Your task to perform on an android device: check battery use Image 0: 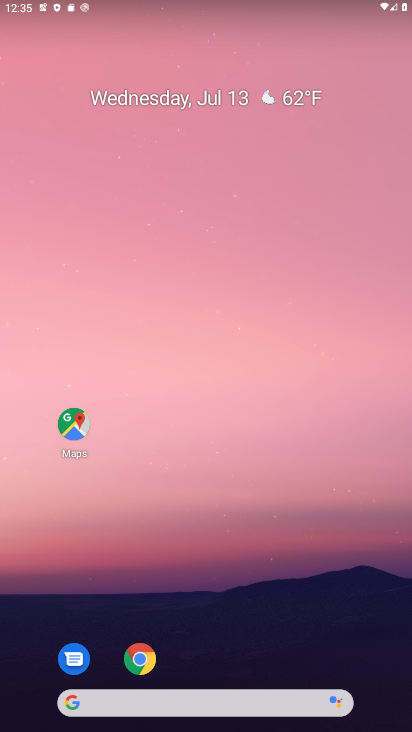
Step 0: drag from (225, 707) to (225, 100)
Your task to perform on an android device: check battery use Image 1: 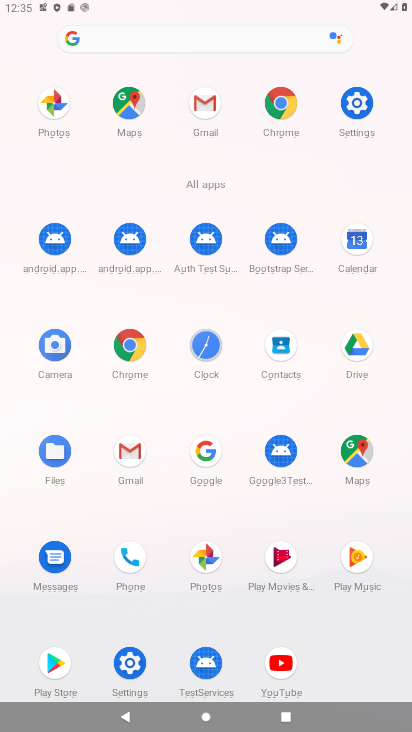
Step 1: click (357, 101)
Your task to perform on an android device: check battery use Image 2: 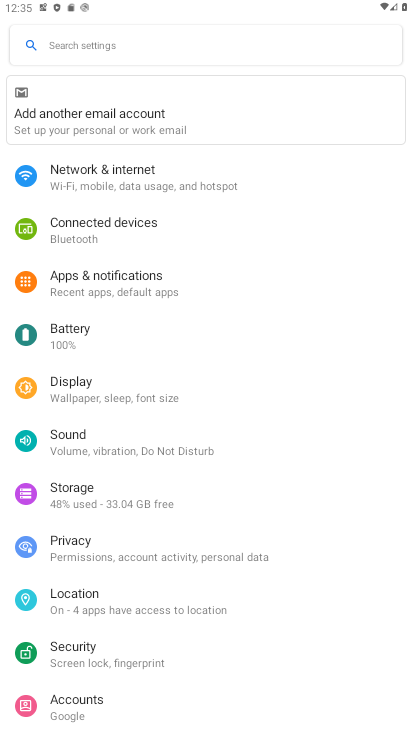
Step 2: click (65, 335)
Your task to perform on an android device: check battery use Image 3: 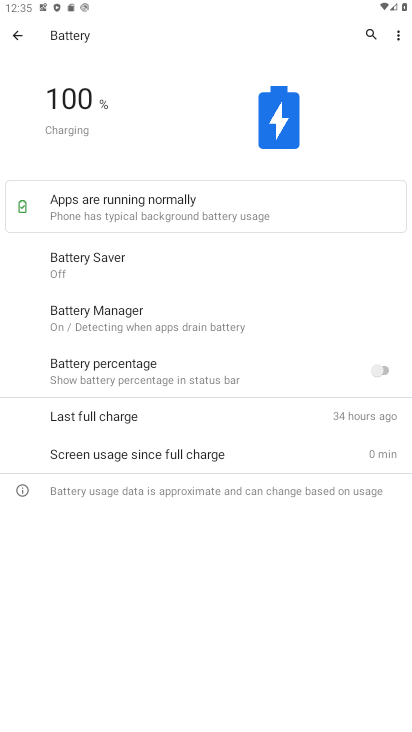
Step 3: click (399, 35)
Your task to perform on an android device: check battery use Image 4: 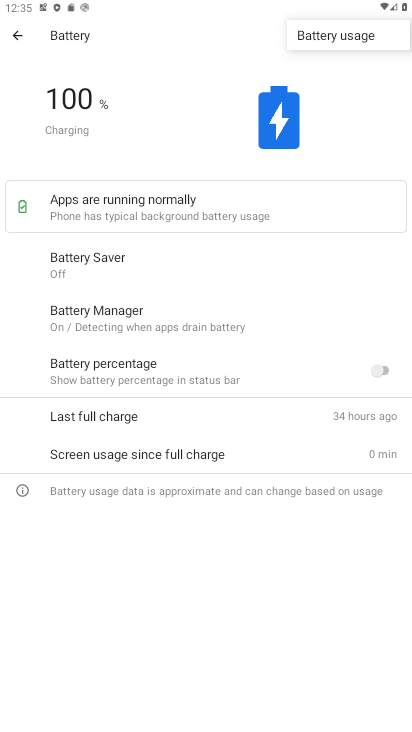
Step 4: click (340, 33)
Your task to perform on an android device: check battery use Image 5: 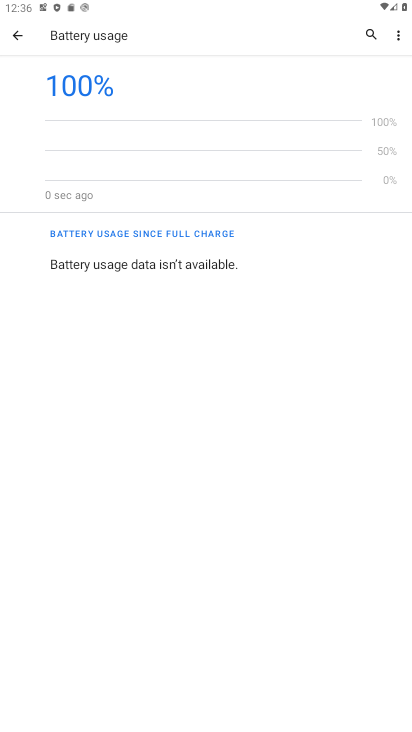
Step 5: task complete